Your task to perform on an android device: Open Amazon Image 0: 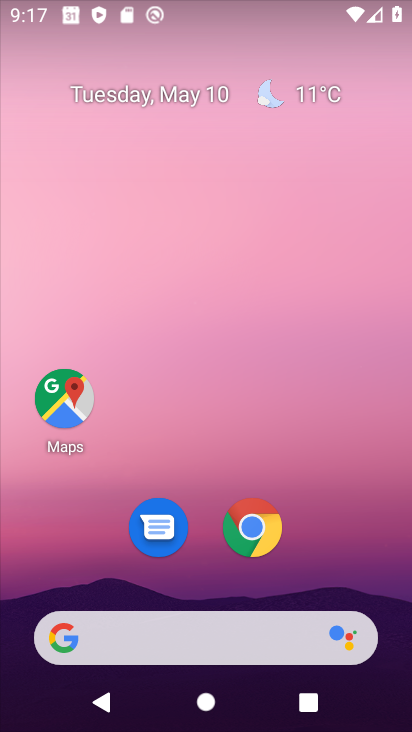
Step 0: click (238, 535)
Your task to perform on an android device: Open Amazon Image 1: 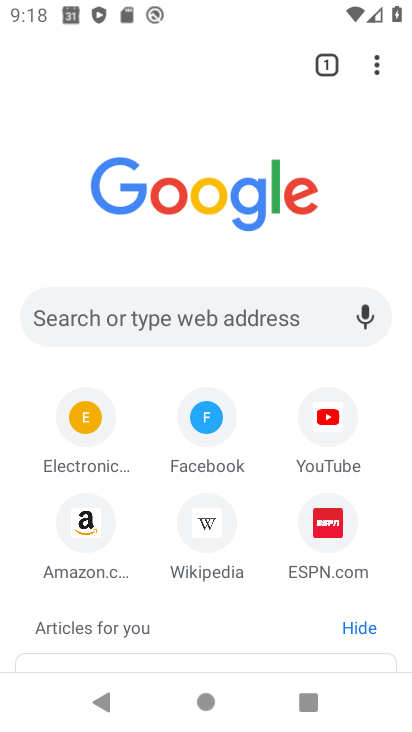
Step 1: click (94, 533)
Your task to perform on an android device: Open Amazon Image 2: 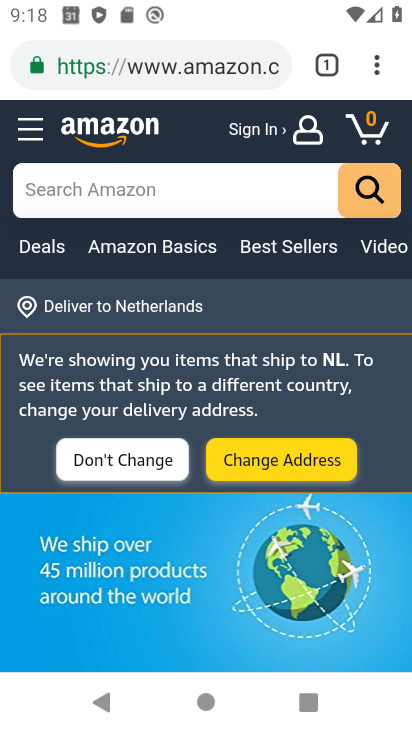
Step 2: task complete